Your task to perform on an android device: check data usage Image 0: 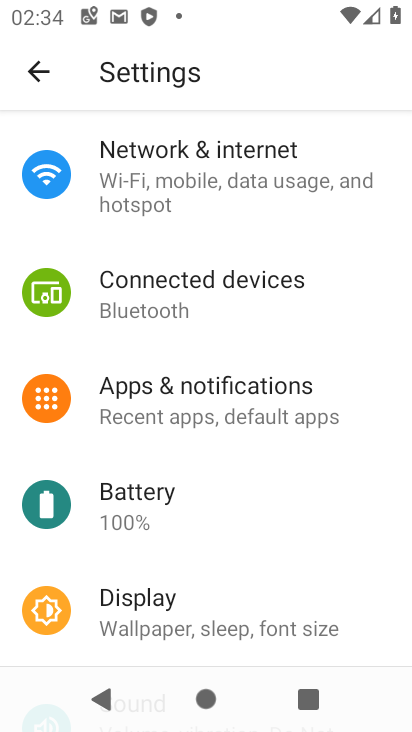
Step 0: click (248, 186)
Your task to perform on an android device: check data usage Image 1: 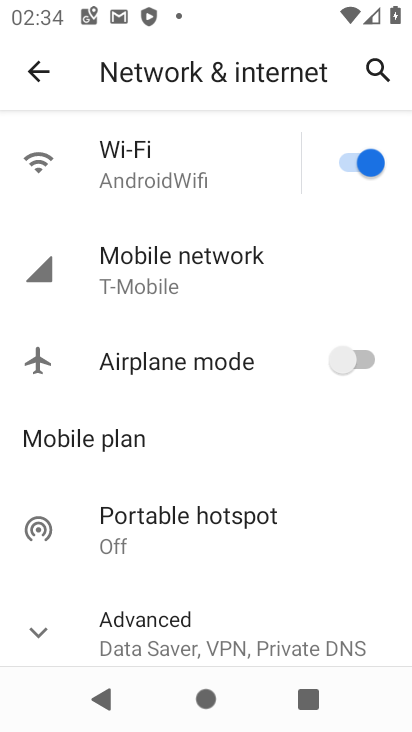
Step 1: click (155, 291)
Your task to perform on an android device: check data usage Image 2: 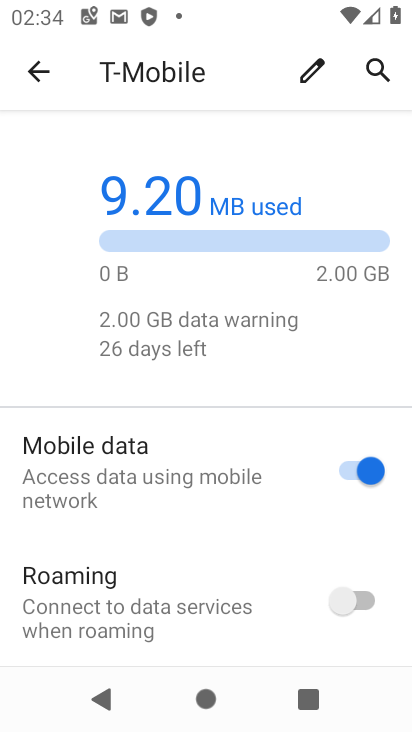
Step 2: drag from (186, 596) to (217, 284)
Your task to perform on an android device: check data usage Image 3: 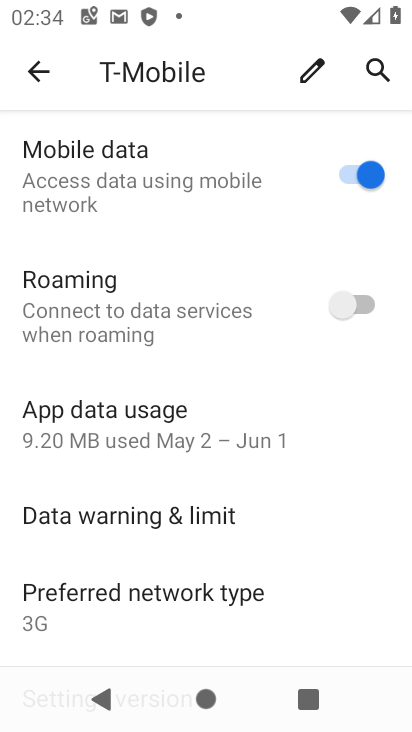
Step 3: click (200, 433)
Your task to perform on an android device: check data usage Image 4: 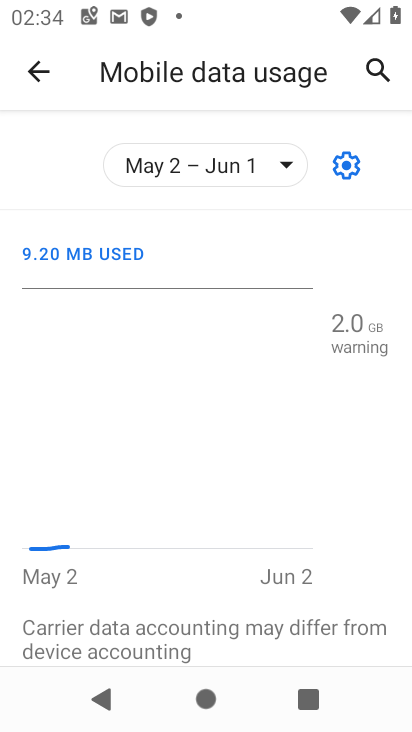
Step 4: task complete